Your task to perform on an android device: open app "Move to iOS" (install if not already installed), go to login, and select forgot password Image 0: 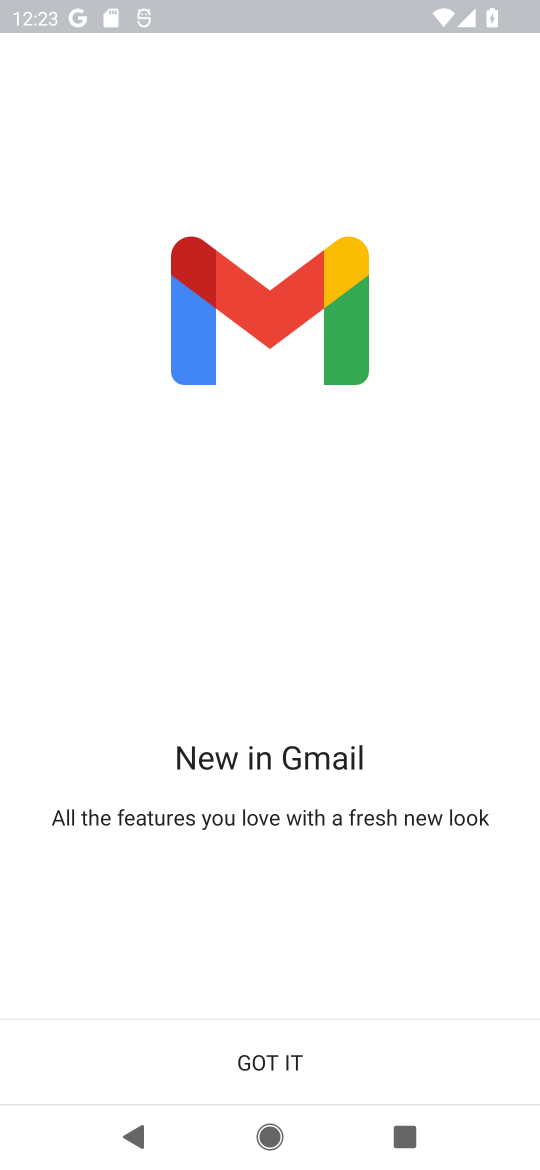
Step 0: click (264, 1069)
Your task to perform on an android device: open app "Move to iOS" (install if not already installed), go to login, and select forgot password Image 1: 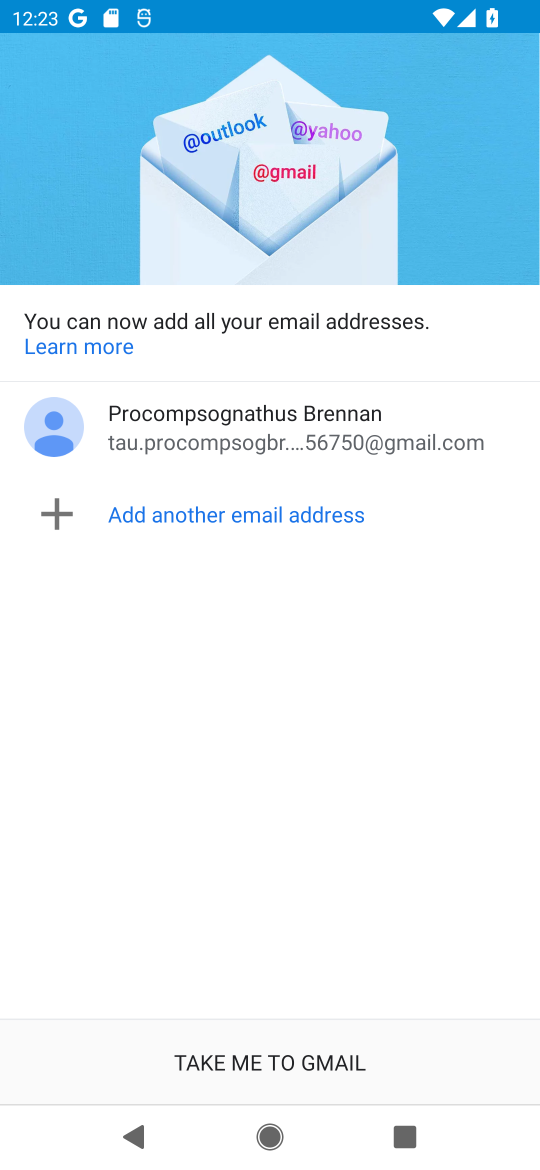
Step 1: click (262, 1061)
Your task to perform on an android device: open app "Move to iOS" (install if not already installed), go to login, and select forgot password Image 2: 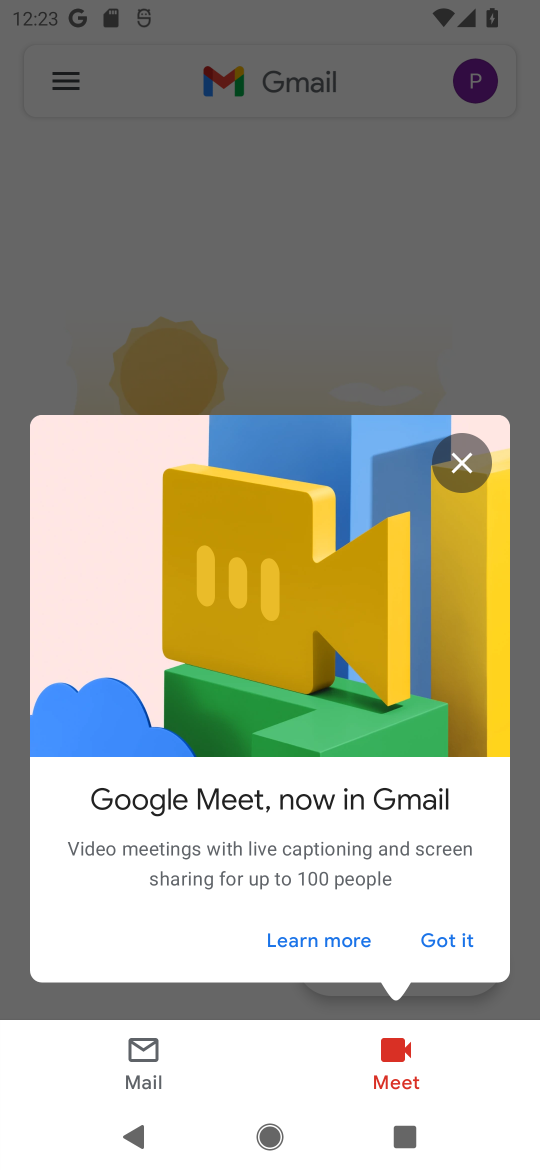
Step 2: click (427, 938)
Your task to perform on an android device: open app "Move to iOS" (install if not already installed), go to login, and select forgot password Image 3: 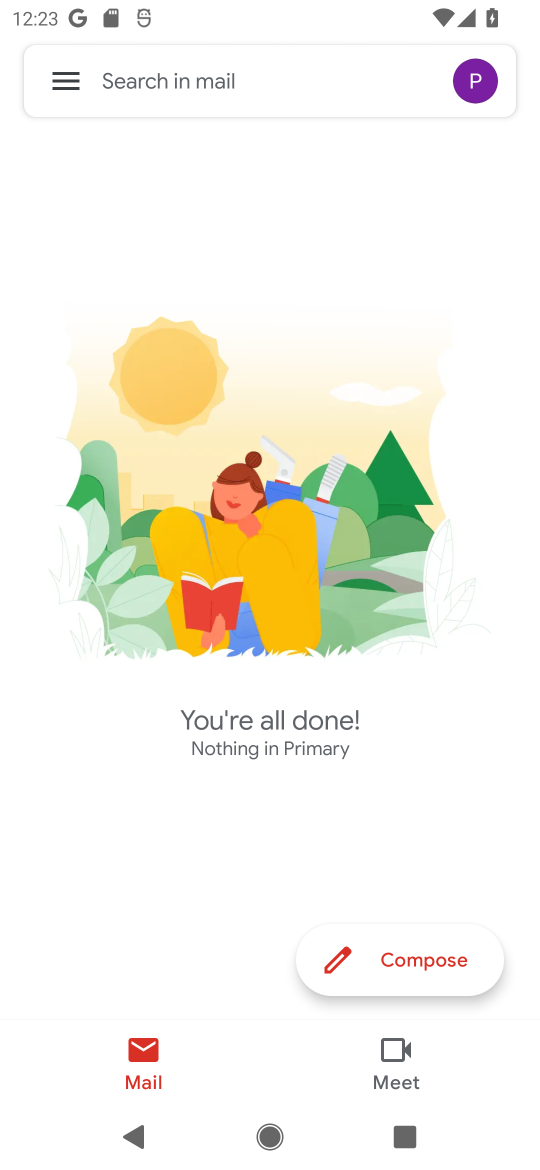
Step 3: press back button
Your task to perform on an android device: open app "Move to iOS" (install if not already installed), go to login, and select forgot password Image 4: 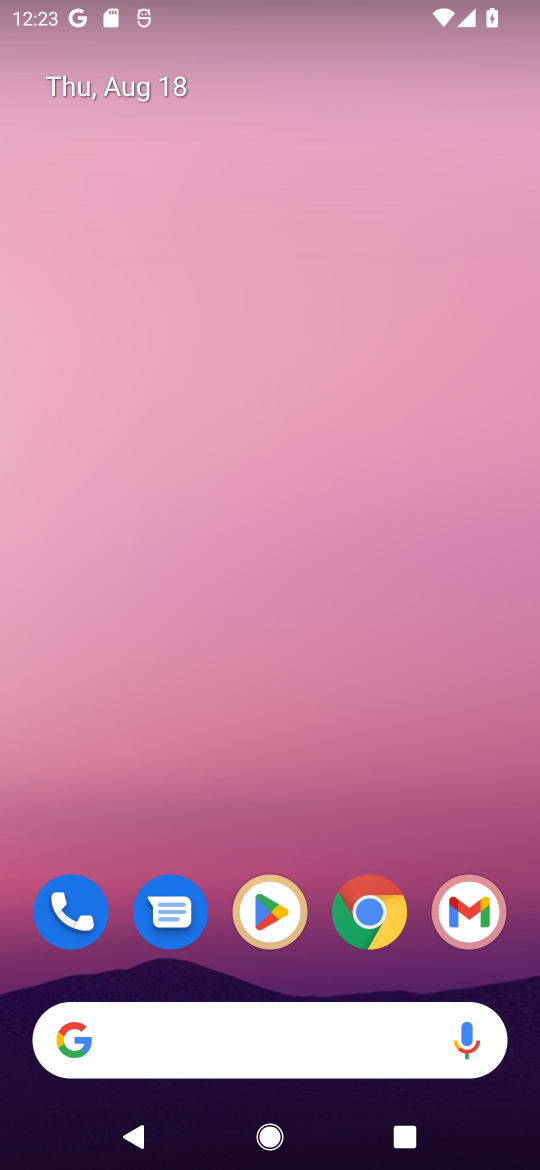
Step 4: click (265, 925)
Your task to perform on an android device: open app "Move to iOS" (install if not already installed), go to login, and select forgot password Image 5: 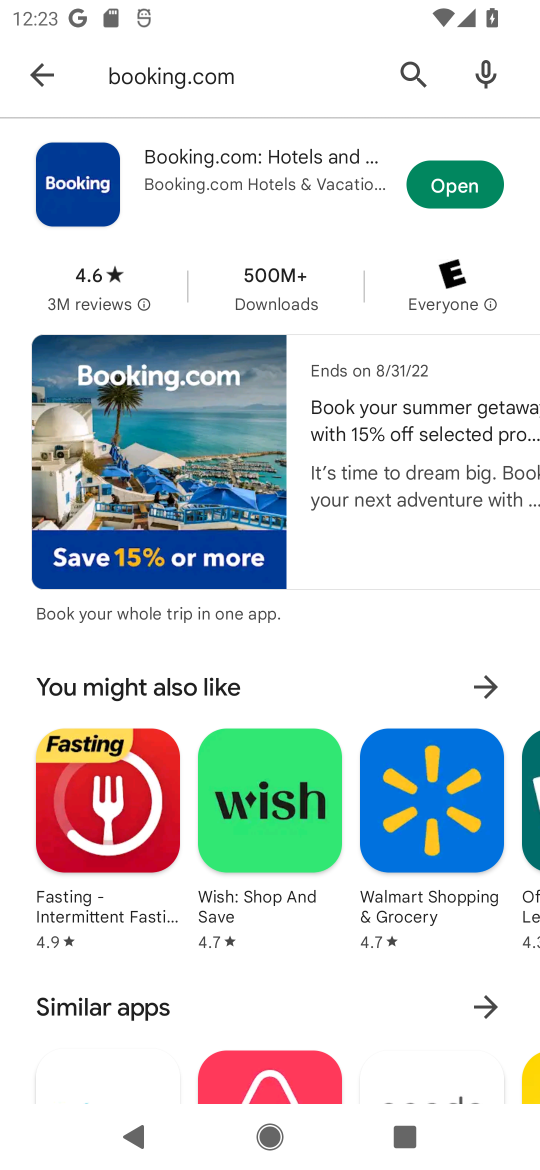
Step 5: click (409, 71)
Your task to perform on an android device: open app "Move to iOS" (install if not already installed), go to login, and select forgot password Image 6: 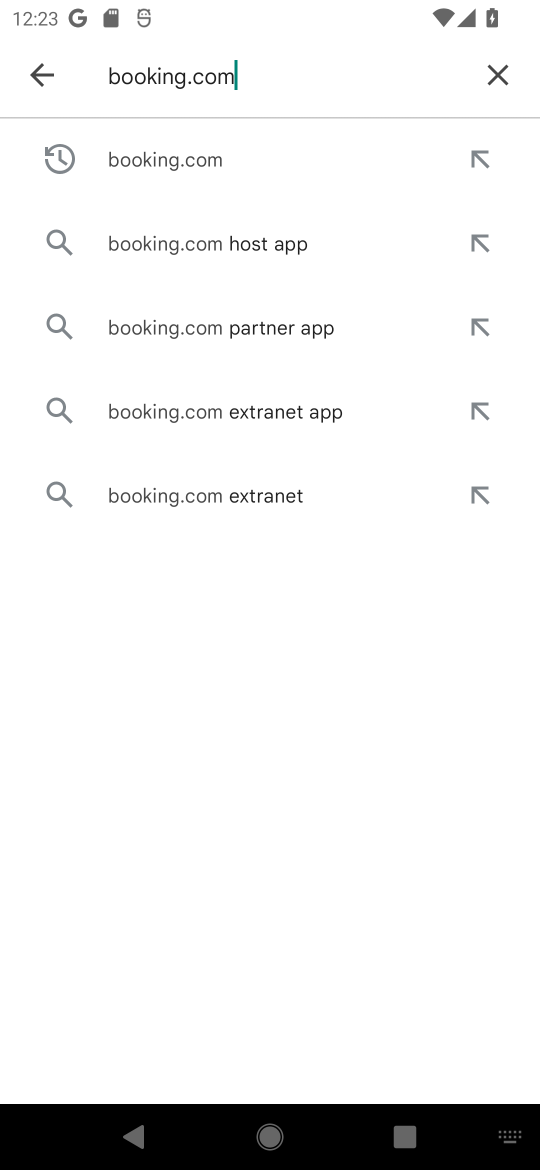
Step 6: click (500, 90)
Your task to perform on an android device: open app "Move to iOS" (install if not already installed), go to login, and select forgot password Image 7: 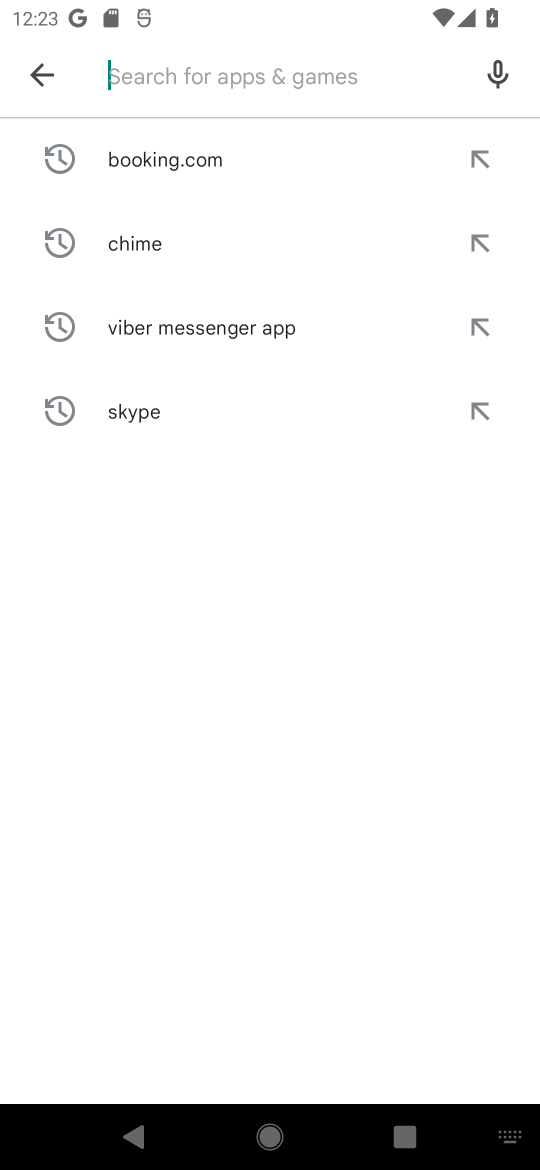
Step 7: click (202, 78)
Your task to perform on an android device: open app "Move to iOS" (install if not already installed), go to login, and select forgot password Image 8: 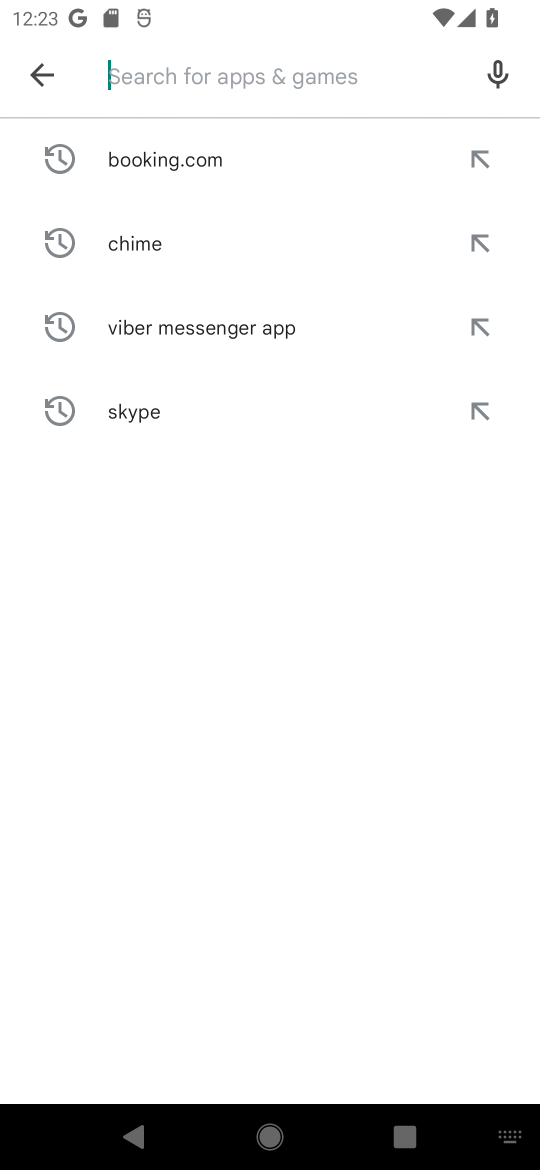
Step 8: type "Move to iOS"
Your task to perform on an android device: open app "Move to iOS" (install if not already installed), go to login, and select forgot password Image 9: 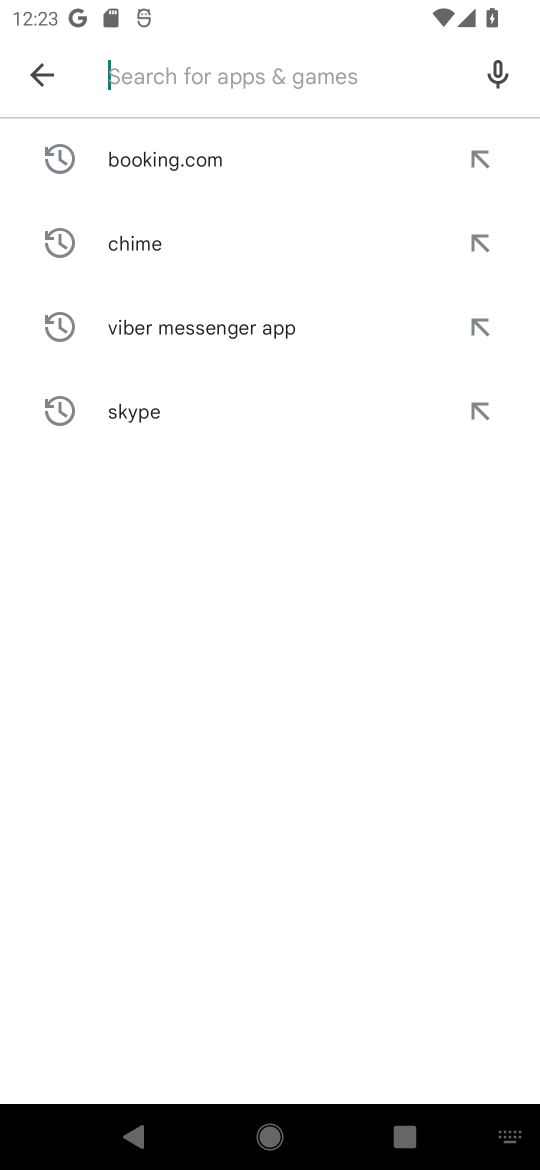
Step 9: click (349, 700)
Your task to perform on an android device: open app "Move to iOS" (install if not already installed), go to login, and select forgot password Image 10: 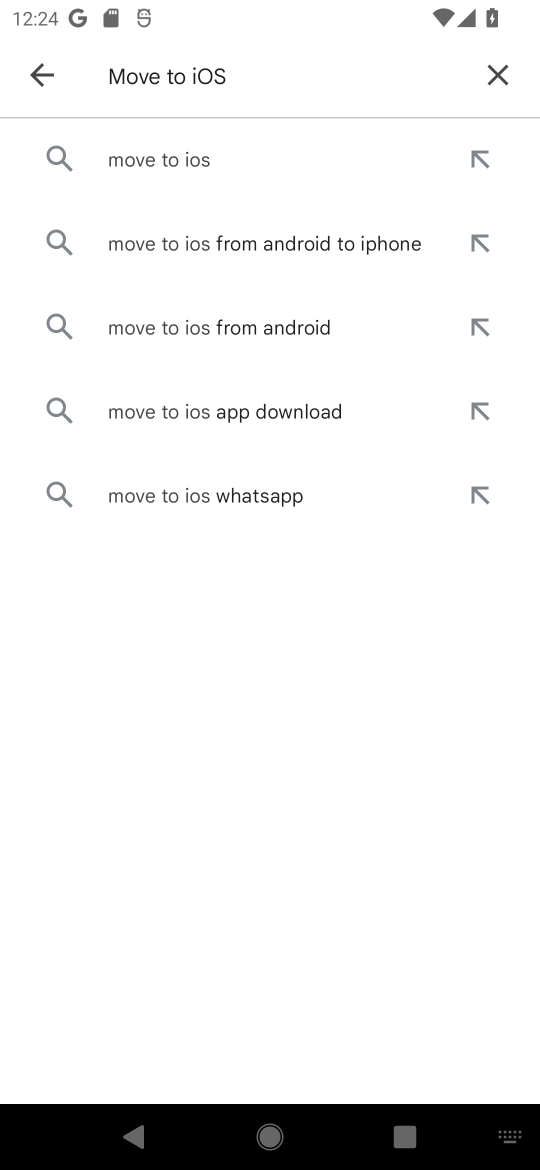
Step 10: click (201, 127)
Your task to perform on an android device: open app "Move to iOS" (install if not already installed), go to login, and select forgot password Image 11: 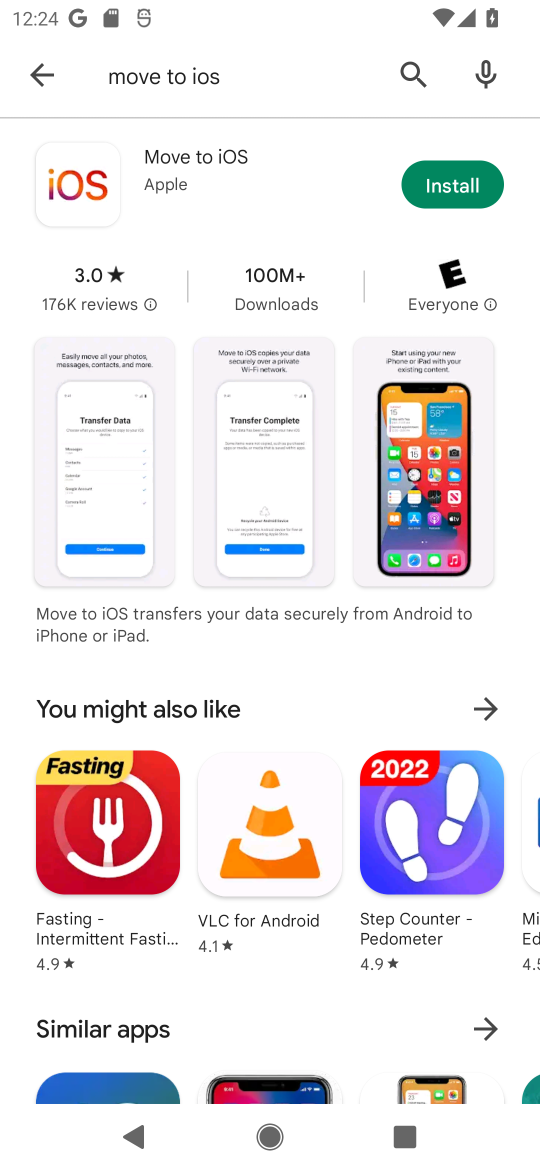
Step 11: click (470, 186)
Your task to perform on an android device: open app "Move to iOS" (install if not already installed), go to login, and select forgot password Image 12: 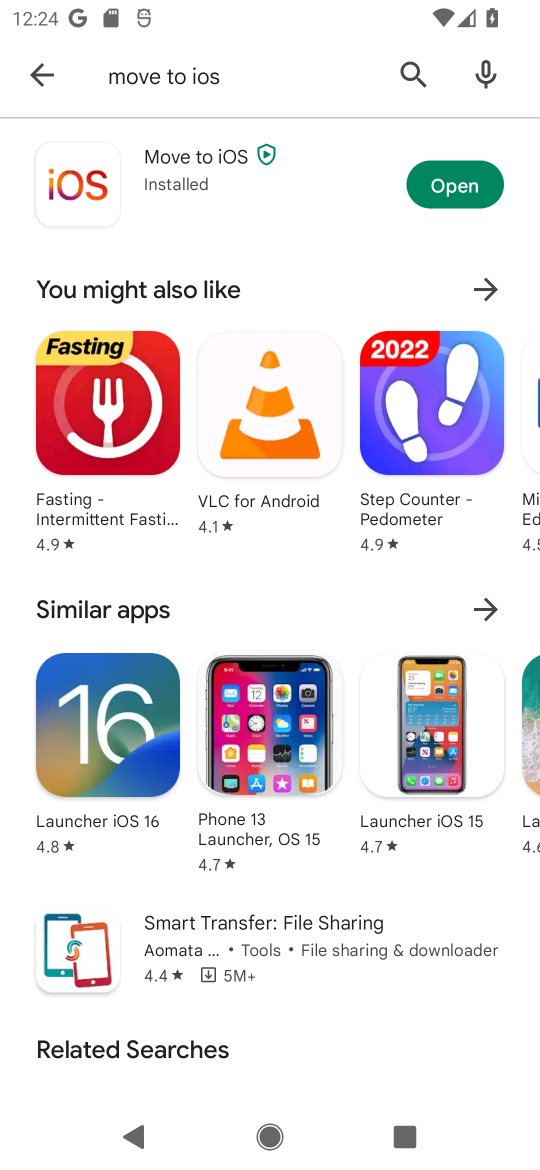
Step 12: click (431, 178)
Your task to perform on an android device: open app "Move to iOS" (install if not already installed), go to login, and select forgot password Image 13: 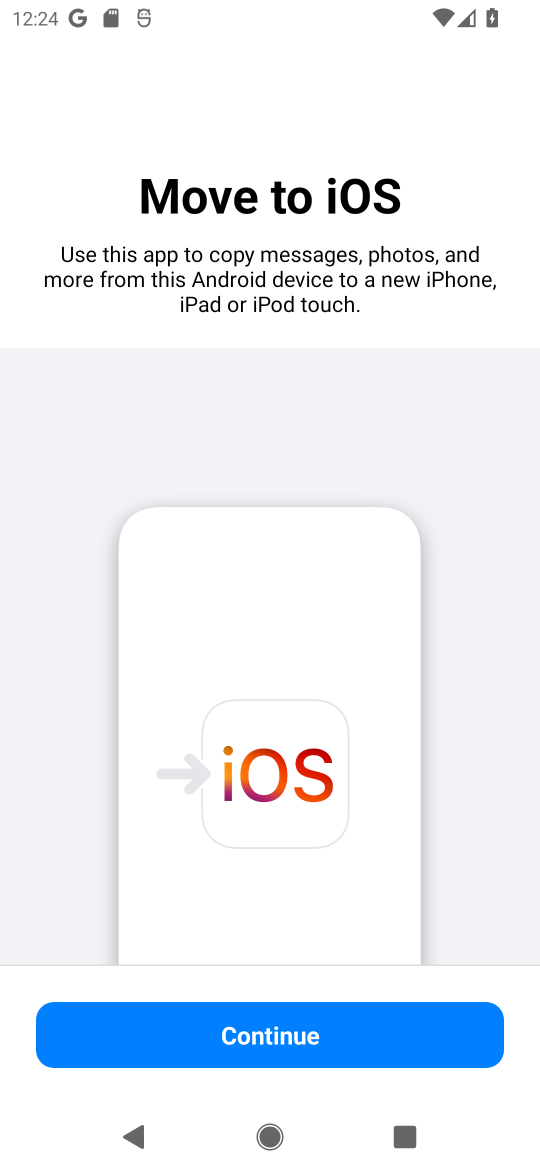
Step 13: click (285, 1042)
Your task to perform on an android device: open app "Move to iOS" (install if not already installed), go to login, and select forgot password Image 14: 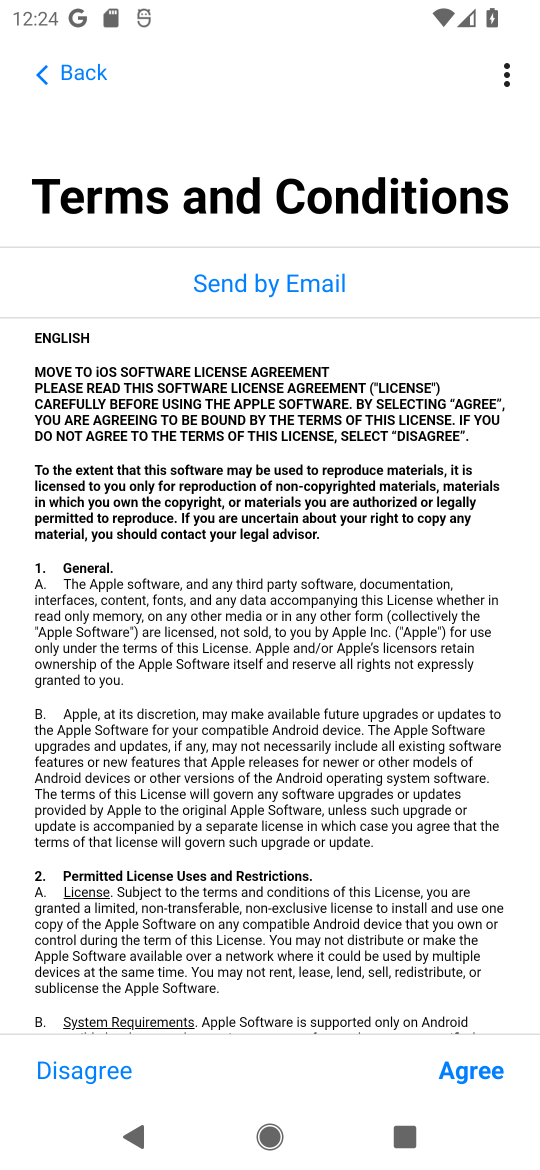
Step 14: click (499, 1055)
Your task to perform on an android device: open app "Move to iOS" (install if not already installed), go to login, and select forgot password Image 15: 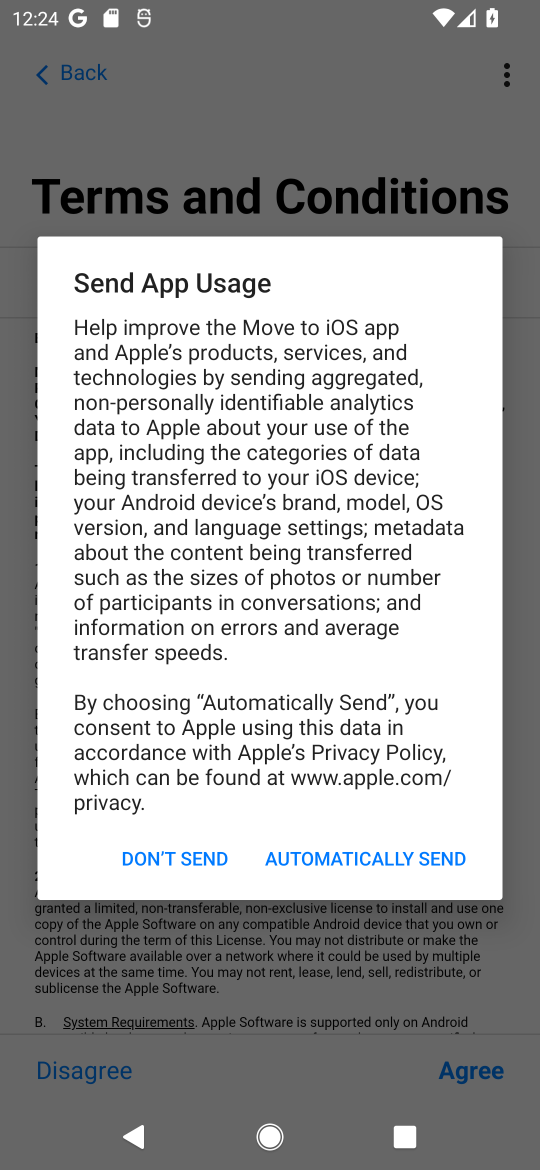
Step 15: click (190, 853)
Your task to perform on an android device: open app "Move to iOS" (install if not already installed), go to login, and select forgot password Image 16: 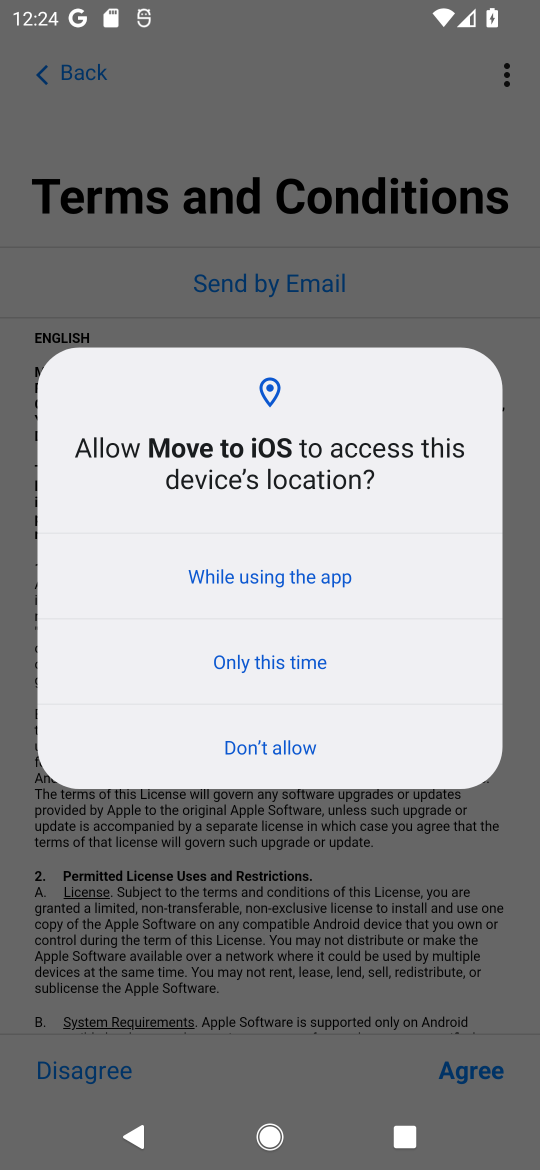
Step 16: click (311, 566)
Your task to perform on an android device: open app "Move to iOS" (install if not already installed), go to login, and select forgot password Image 17: 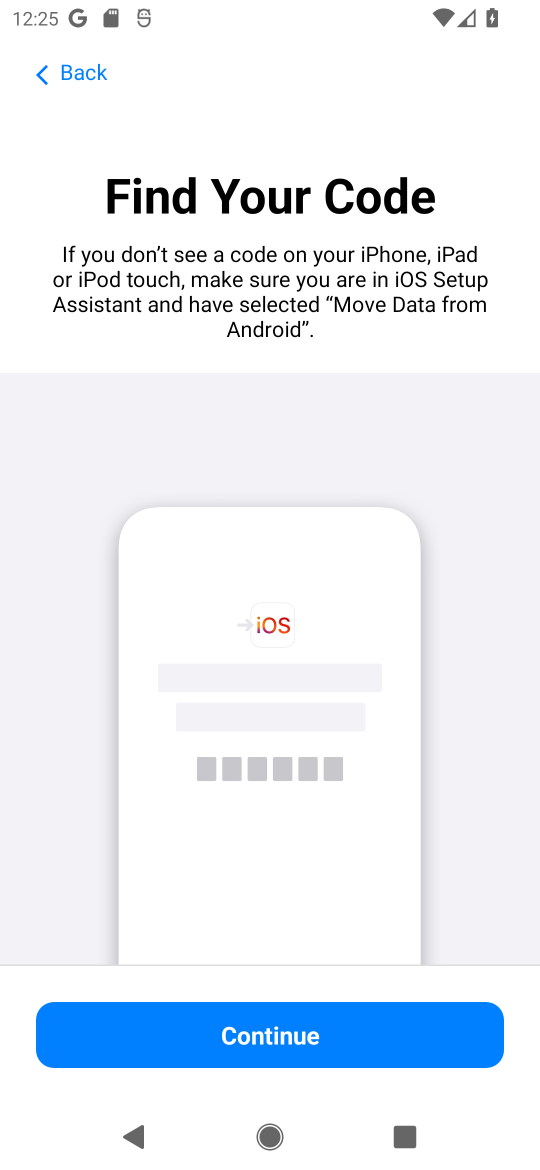
Step 17: click (307, 1022)
Your task to perform on an android device: open app "Move to iOS" (install if not already installed), go to login, and select forgot password Image 18: 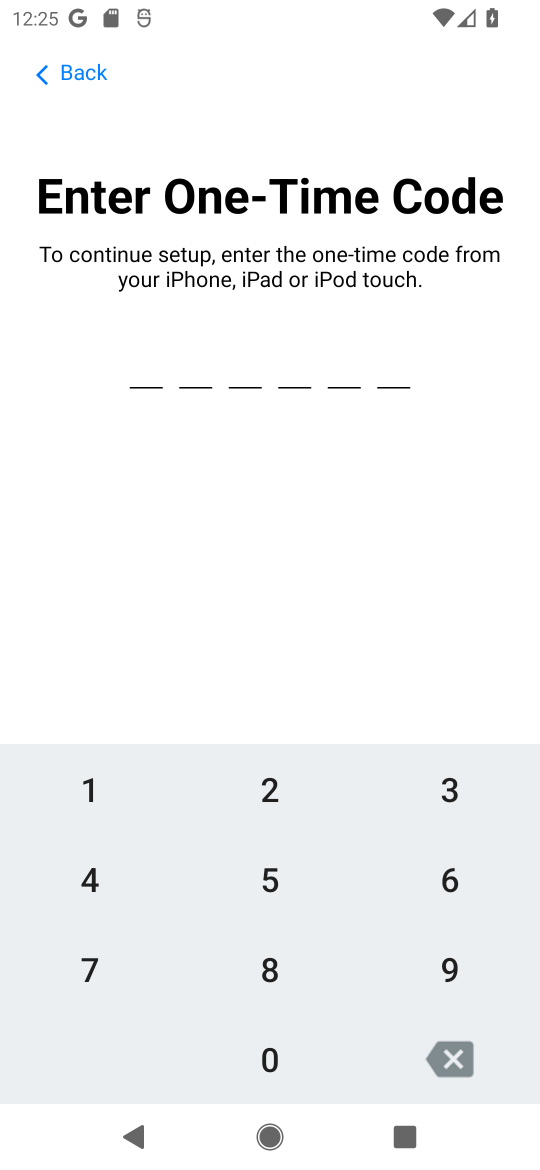
Step 18: task complete